Your task to perform on an android device: create a new album in the google photos Image 0: 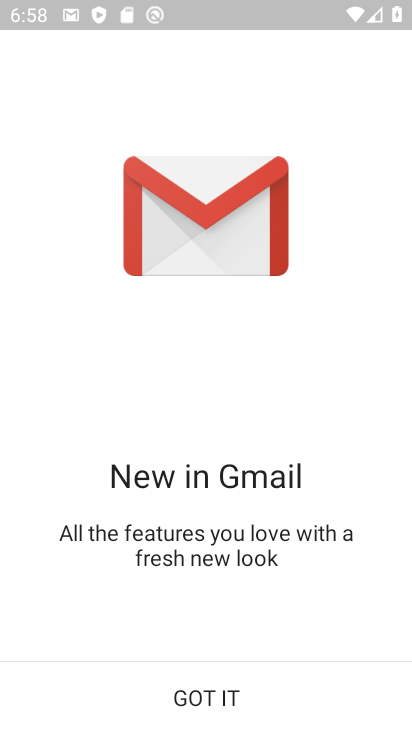
Step 0: press home button
Your task to perform on an android device: create a new album in the google photos Image 1: 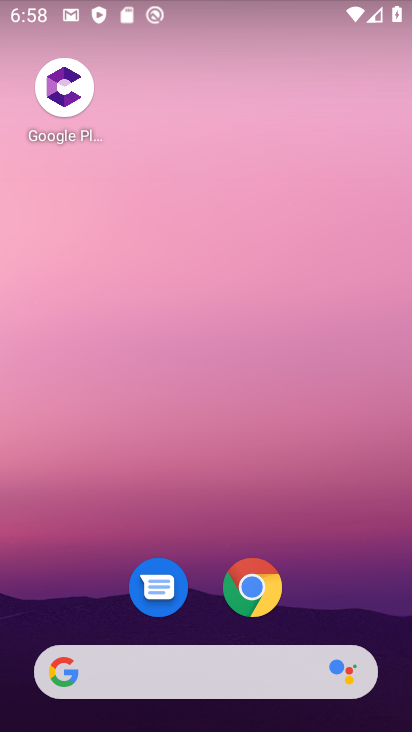
Step 1: drag from (211, 694) to (263, 109)
Your task to perform on an android device: create a new album in the google photos Image 2: 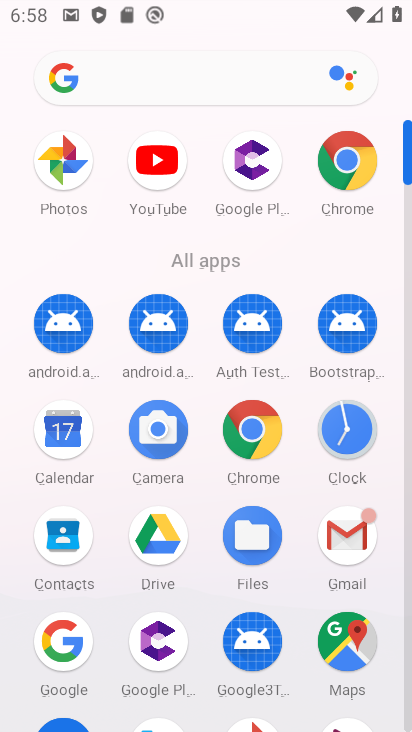
Step 2: drag from (211, 501) to (201, 263)
Your task to perform on an android device: create a new album in the google photos Image 3: 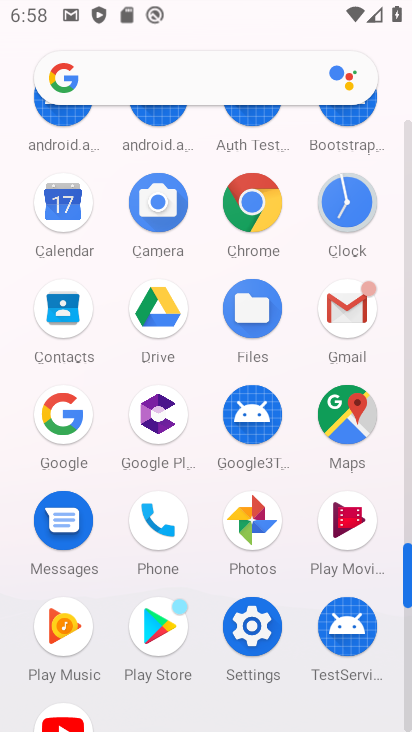
Step 3: click (251, 532)
Your task to perform on an android device: create a new album in the google photos Image 4: 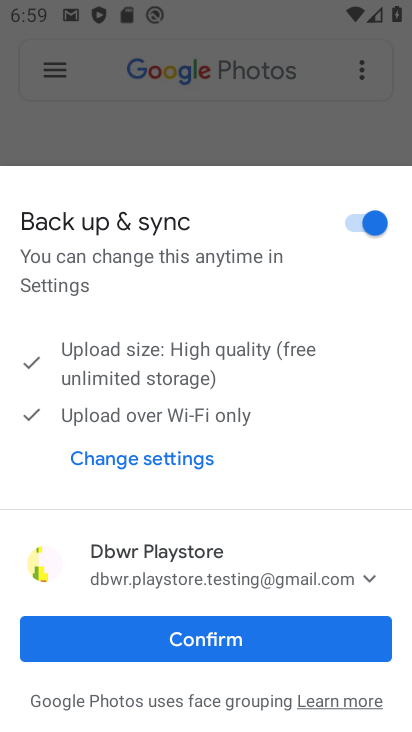
Step 4: click (222, 642)
Your task to perform on an android device: create a new album in the google photos Image 5: 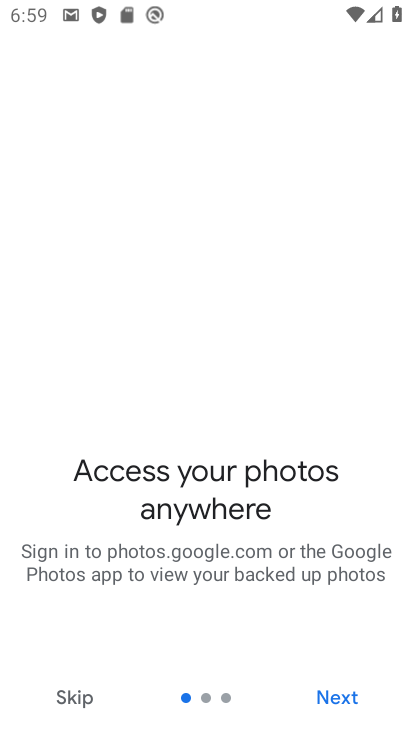
Step 5: click (330, 699)
Your task to perform on an android device: create a new album in the google photos Image 6: 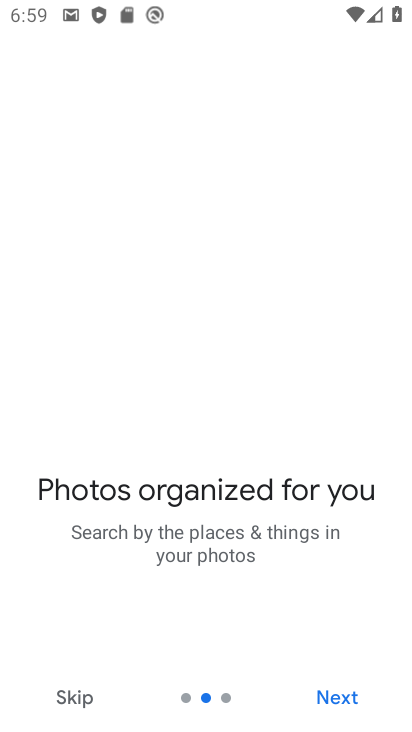
Step 6: click (316, 685)
Your task to perform on an android device: create a new album in the google photos Image 7: 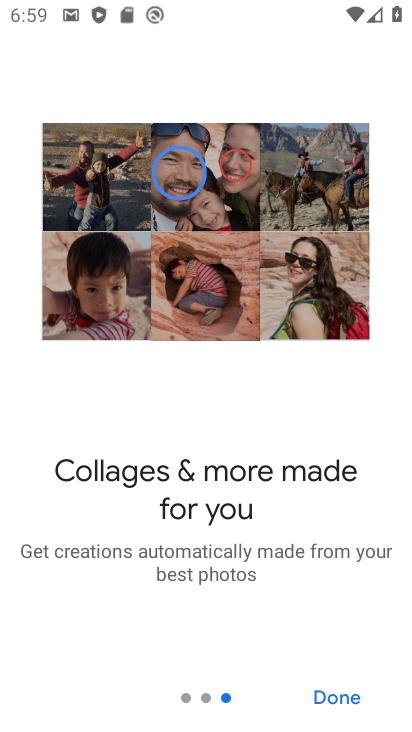
Step 7: click (313, 698)
Your task to perform on an android device: create a new album in the google photos Image 8: 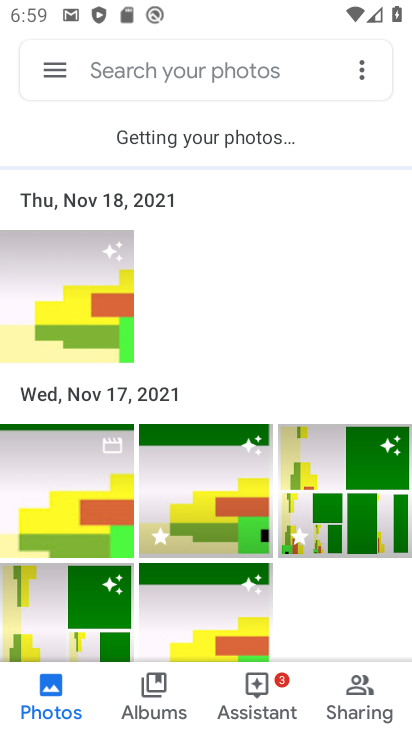
Step 8: click (80, 338)
Your task to perform on an android device: create a new album in the google photos Image 9: 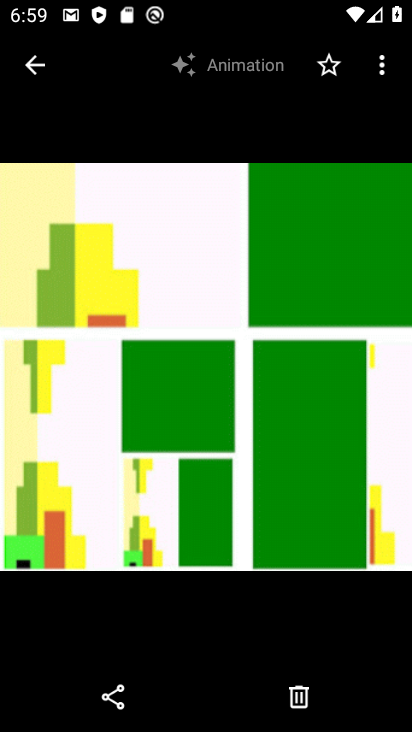
Step 9: click (382, 69)
Your task to perform on an android device: create a new album in the google photos Image 10: 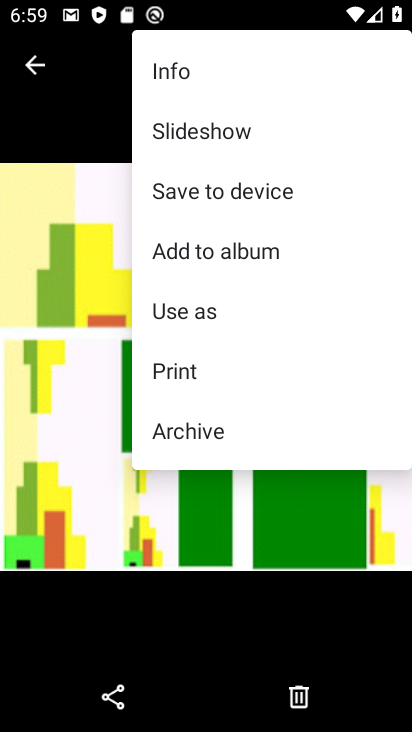
Step 10: click (206, 251)
Your task to perform on an android device: create a new album in the google photos Image 11: 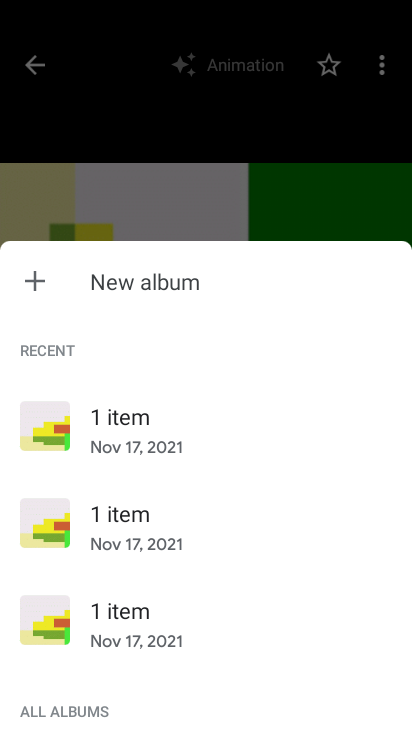
Step 11: click (91, 293)
Your task to perform on an android device: create a new album in the google photos Image 12: 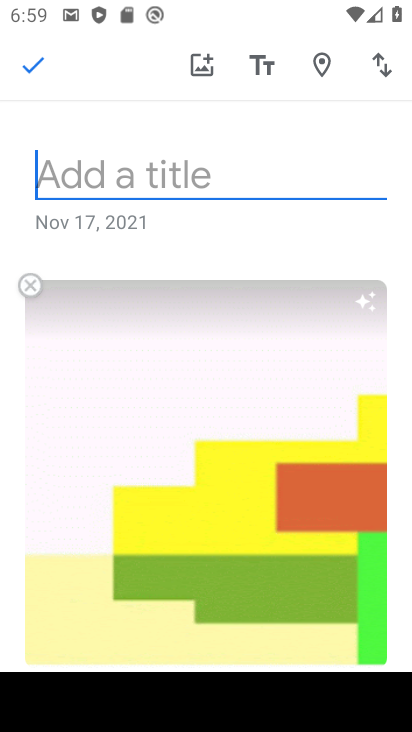
Step 12: click (128, 171)
Your task to perform on an android device: create a new album in the google photos Image 13: 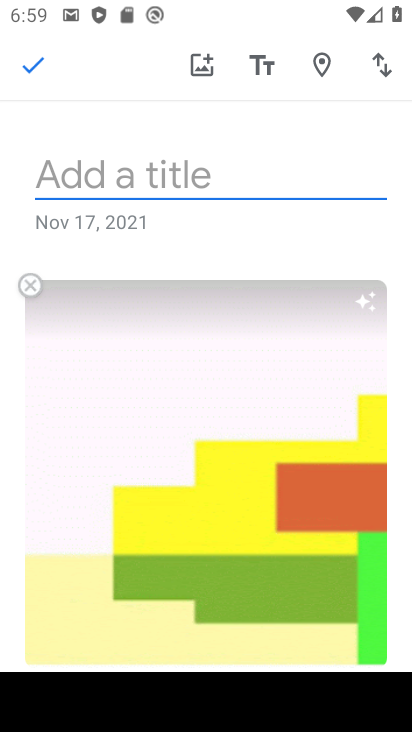
Step 13: drag from (359, 697) to (405, 518)
Your task to perform on an android device: create a new album in the google photos Image 14: 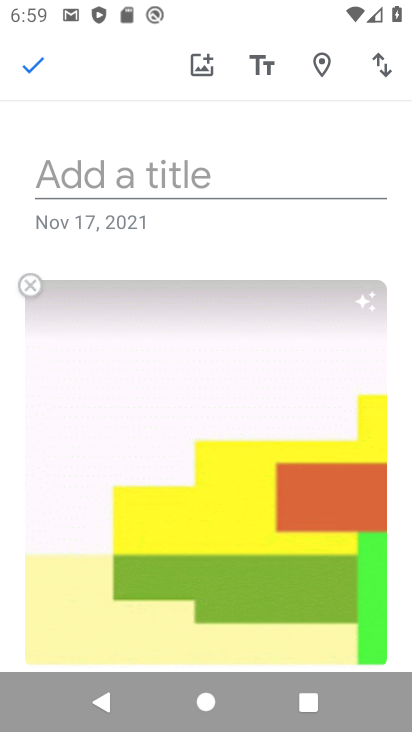
Step 14: click (385, 702)
Your task to perform on an android device: create a new album in the google photos Image 15: 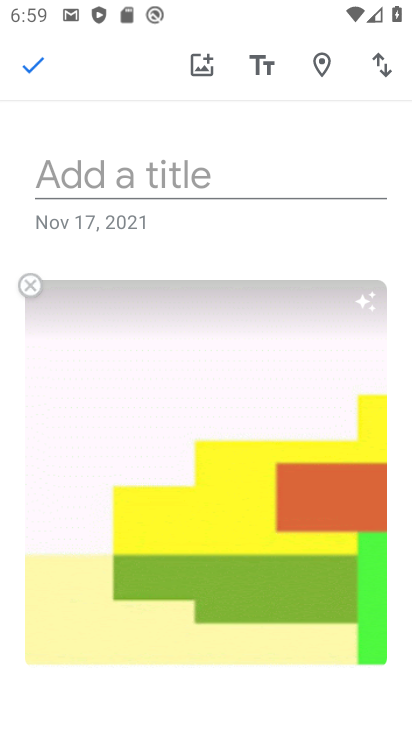
Step 15: drag from (378, 704) to (411, 628)
Your task to perform on an android device: create a new album in the google photos Image 16: 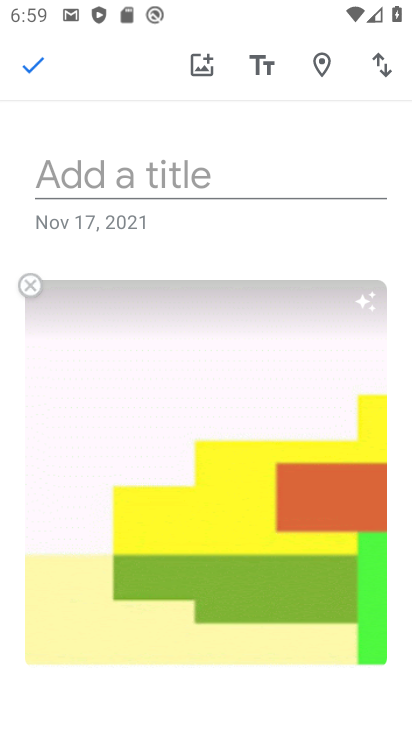
Step 16: drag from (371, 640) to (374, 478)
Your task to perform on an android device: create a new album in the google photos Image 17: 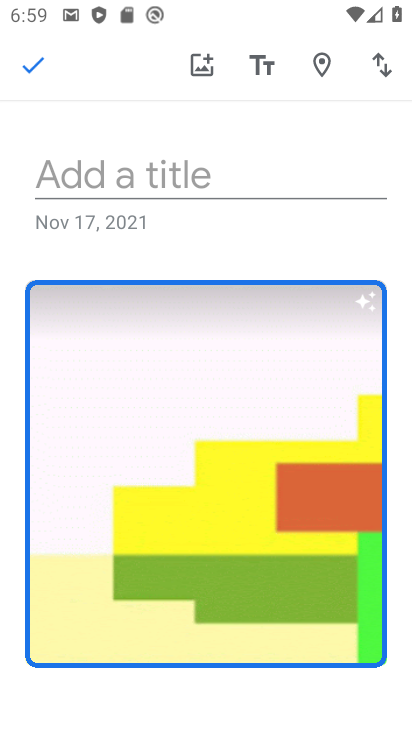
Step 17: click (397, 727)
Your task to perform on an android device: create a new album in the google photos Image 18: 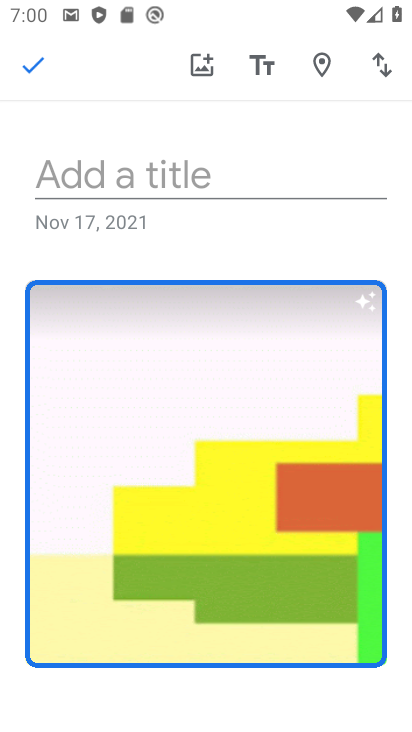
Step 18: click (377, 723)
Your task to perform on an android device: create a new album in the google photos Image 19: 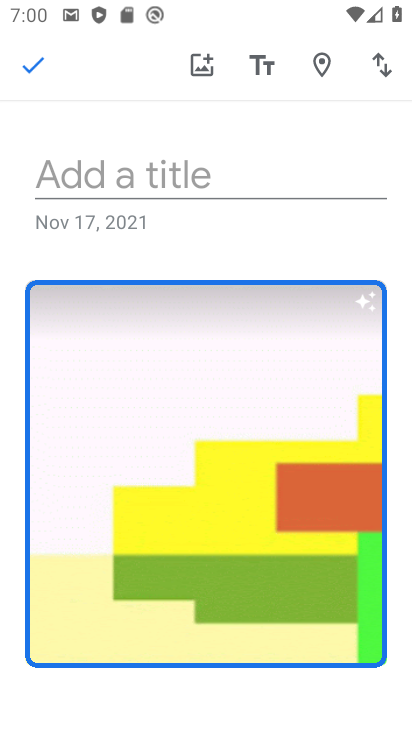
Step 19: click (40, 62)
Your task to perform on an android device: create a new album in the google photos Image 20: 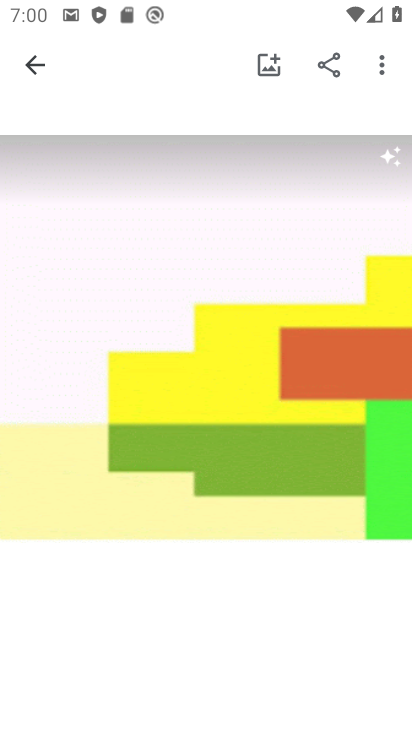
Step 20: task complete